Your task to perform on an android device: turn off airplane mode Image 0: 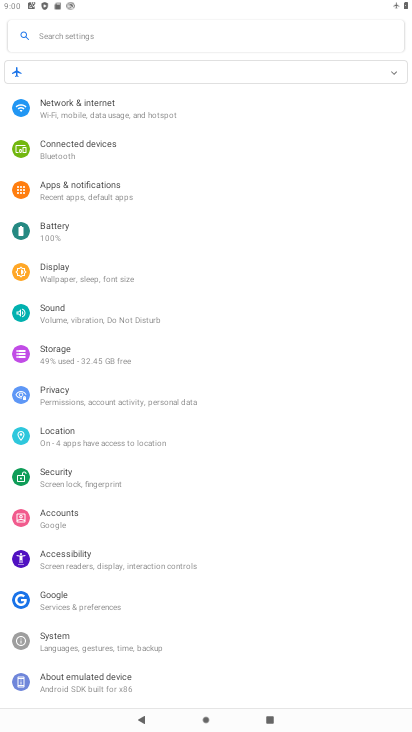
Step 0: click (99, 112)
Your task to perform on an android device: turn off airplane mode Image 1: 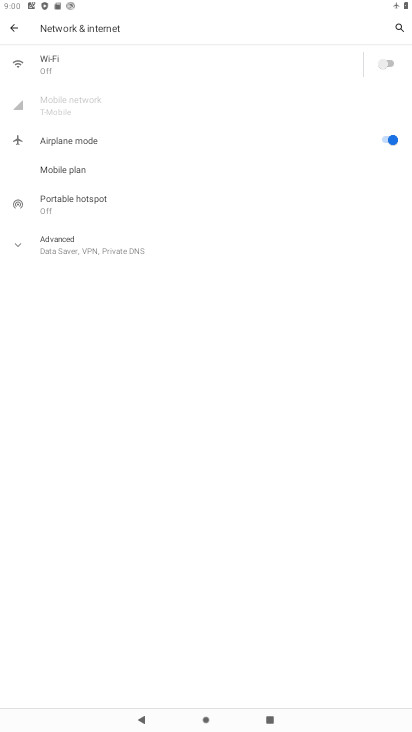
Step 1: click (372, 136)
Your task to perform on an android device: turn off airplane mode Image 2: 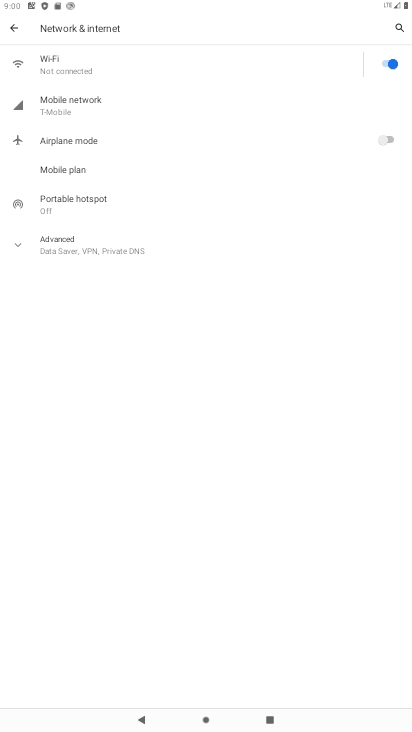
Step 2: task complete